Your task to perform on an android device: Turn off the flashlight Image 0: 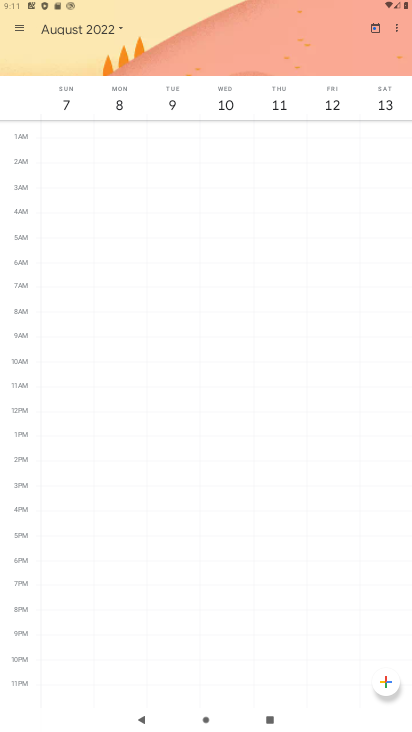
Step 0: press home button
Your task to perform on an android device: Turn off the flashlight Image 1: 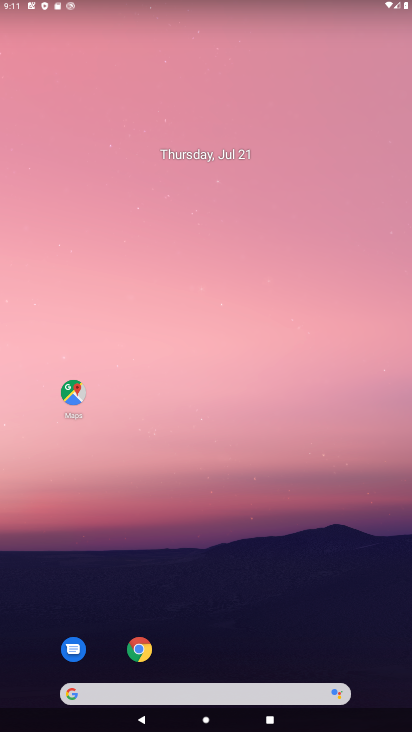
Step 1: drag from (216, 615) to (237, 3)
Your task to perform on an android device: Turn off the flashlight Image 2: 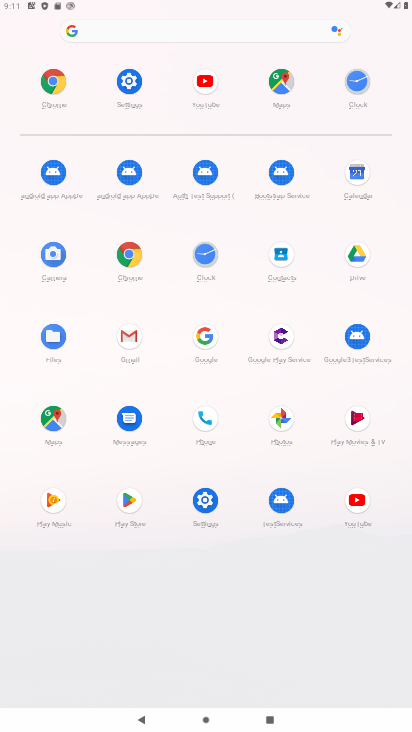
Step 2: click (190, 498)
Your task to perform on an android device: Turn off the flashlight Image 3: 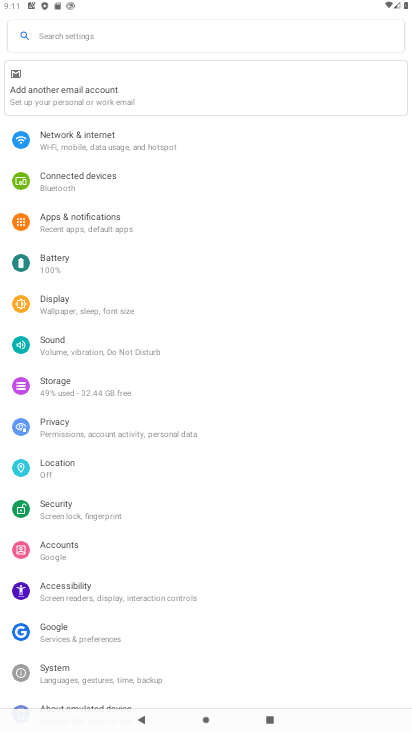
Step 3: click (188, 32)
Your task to perform on an android device: Turn off the flashlight Image 4: 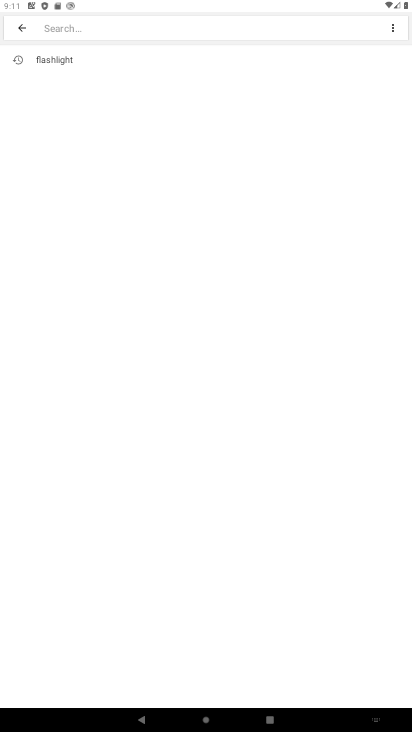
Step 4: type "flashlight"
Your task to perform on an android device: Turn off the flashlight Image 5: 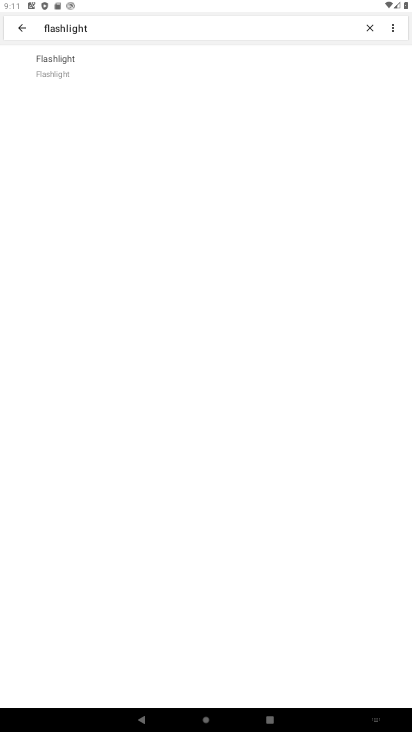
Step 5: click (60, 50)
Your task to perform on an android device: Turn off the flashlight Image 6: 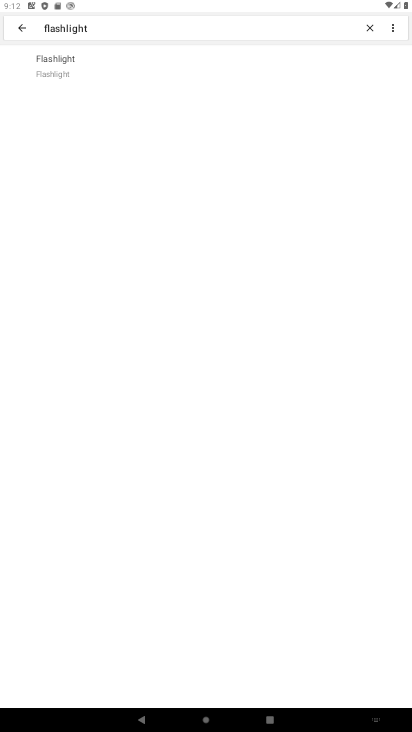
Step 6: click (67, 55)
Your task to perform on an android device: Turn off the flashlight Image 7: 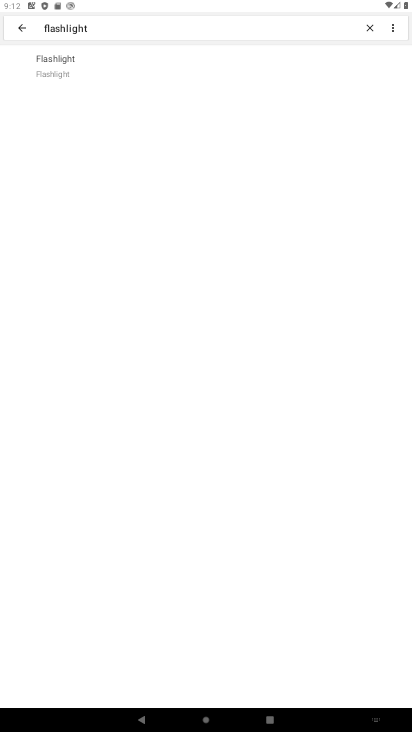
Step 7: task complete